Your task to perform on an android device: turn on sleep mode Image 0: 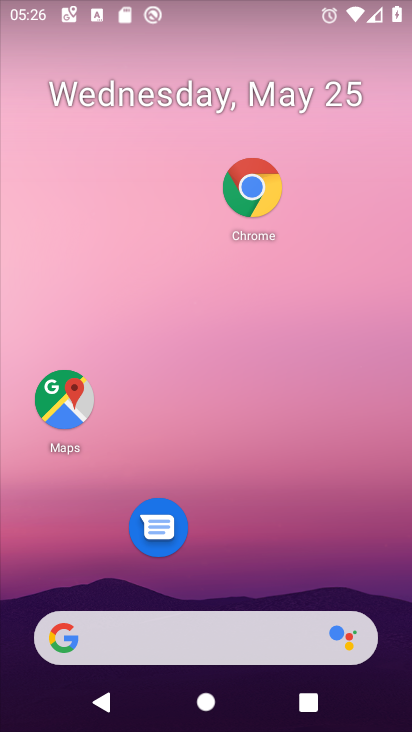
Step 0: drag from (215, 569) to (400, 5)
Your task to perform on an android device: turn on sleep mode Image 1: 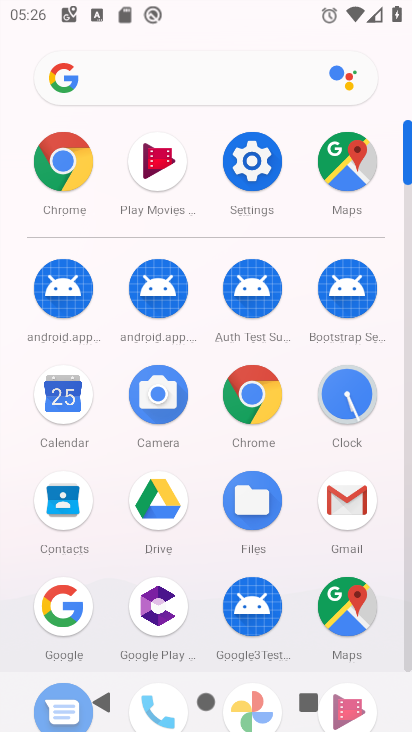
Step 1: click (264, 150)
Your task to perform on an android device: turn on sleep mode Image 2: 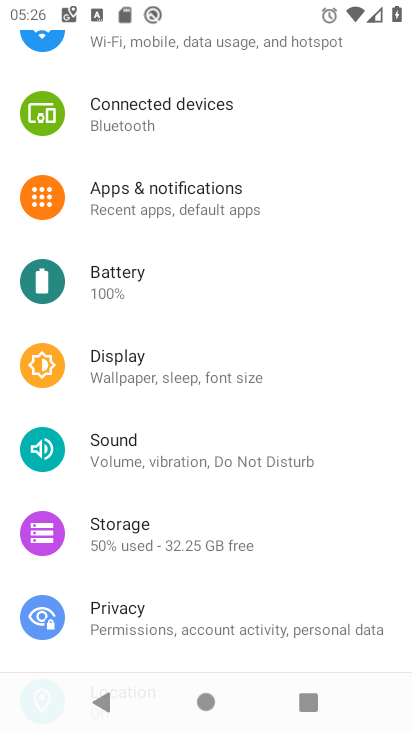
Step 2: task complete